Your task to perform on an android device: turn notification dots off Image 0: 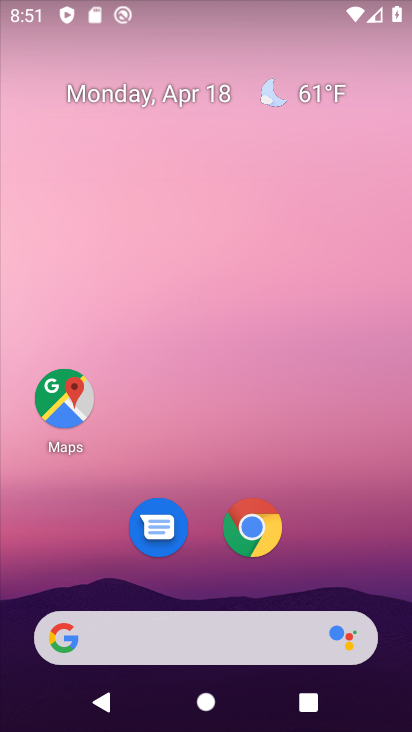
Step 0: drag from (271, 10) to (305, 622)
Your task to perform on an android device: turn notification dots off Image 1: 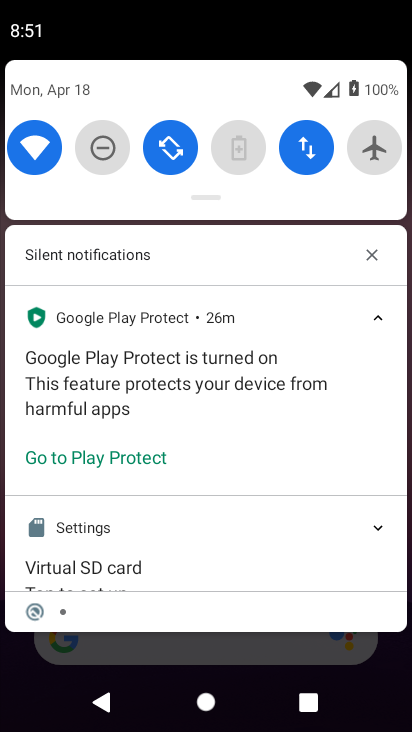
Step 1: drag from (261, 99) to (272, 723)
Your task to perform on an android device: turn notification dots off Image 2: 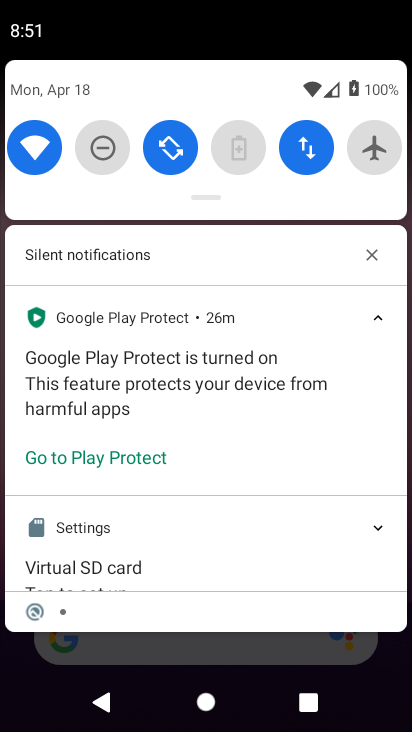
Step 2: drag from (204, 96) to (248, 448)
Your task to perform on an android device: turn notification dots off Image 3: 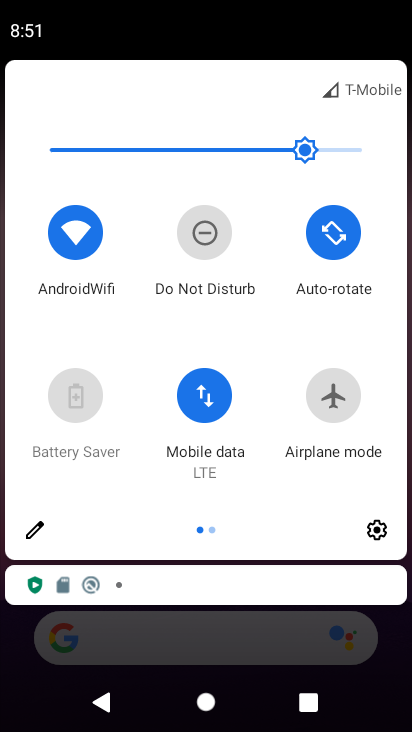
Step 3: click (377, 528)
Your task to perform on an android device: turn notification dots off Image 4: 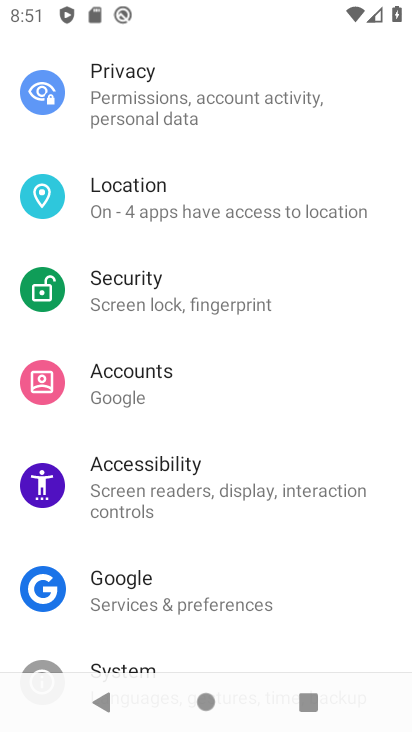
Step 4: click (191, 113)
Your task to perform on an android device: turn notification dots off Image 5: 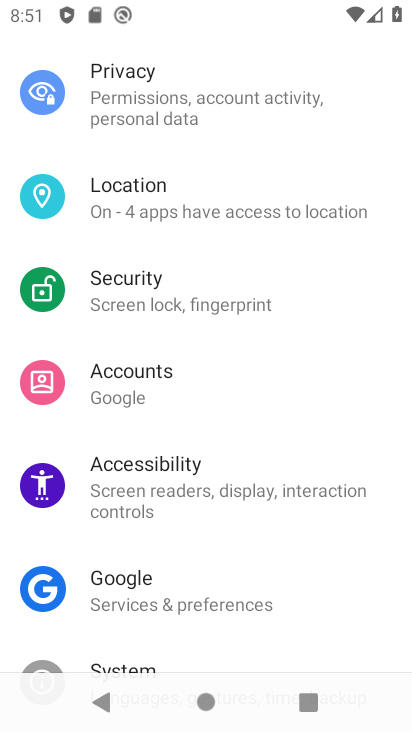
Step 5: drag from (191, 113) to (71, 655)
Your task to perform on an android device: turn notification dots off Image 6: 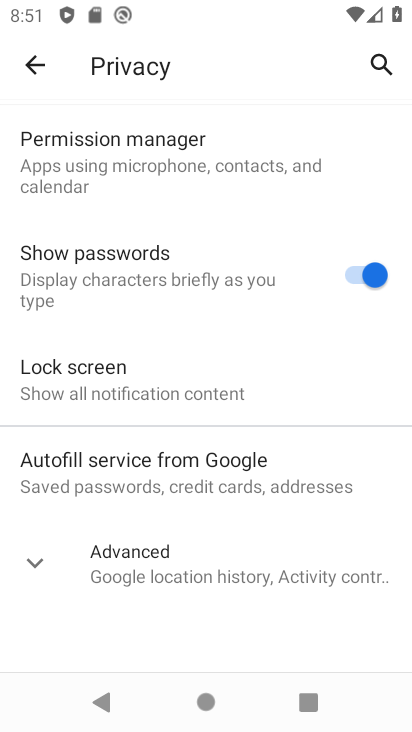
Step 6: click (33, 68)
Your task to perform on an android device: turn notification dots off Image 7: 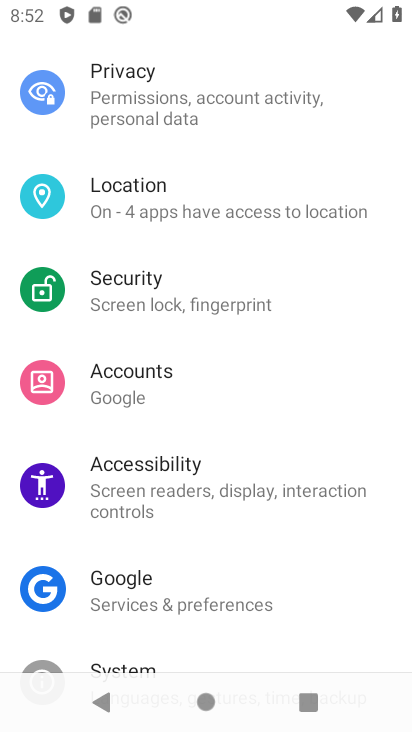
Step 7: drag from (175, 167) to (187, 560)
Your task to perform on an android device: turn notification dots off Image 8: 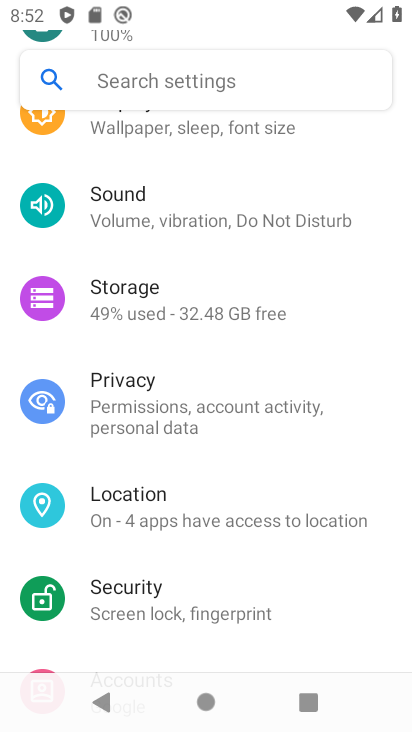
Step 8: drag from (193, 148) to (244, 621)
Your task to perform on an android device: turn notification dots off Image 9: 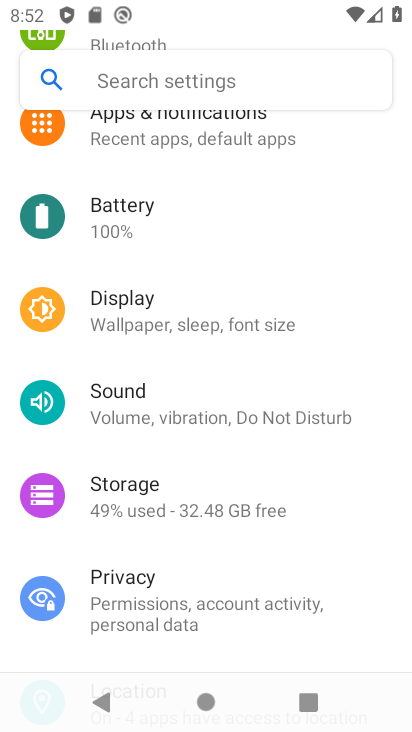
Step 9: click (262, 129)
Your task to perform on an android device: turn notification dots off Image 10: 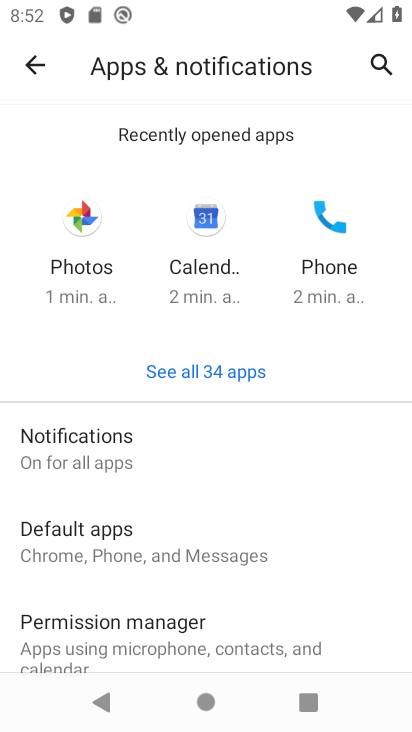
Step 10: click (144, 450)
Your task to perform on an android device: turn notification dots off Image 11: 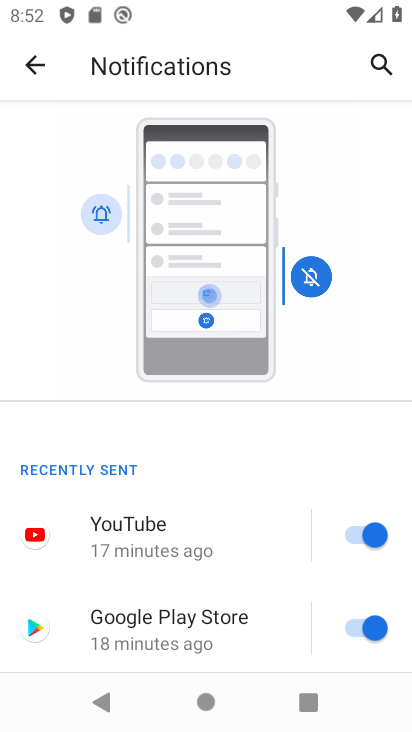
Step 11: drag from (104, 649) to (217, 166)
Your task to perform on an android device: turn notification dots off Image 12: 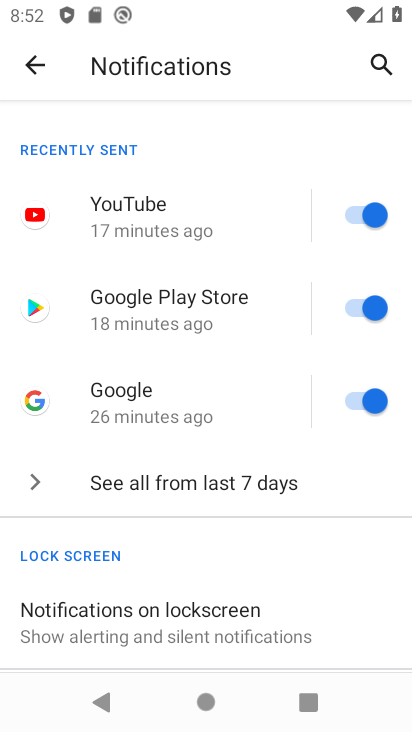
Step 12: drag from (108, 568) to (196, 94)
Your task to perform on an android device: turn notification dots off Image 13: 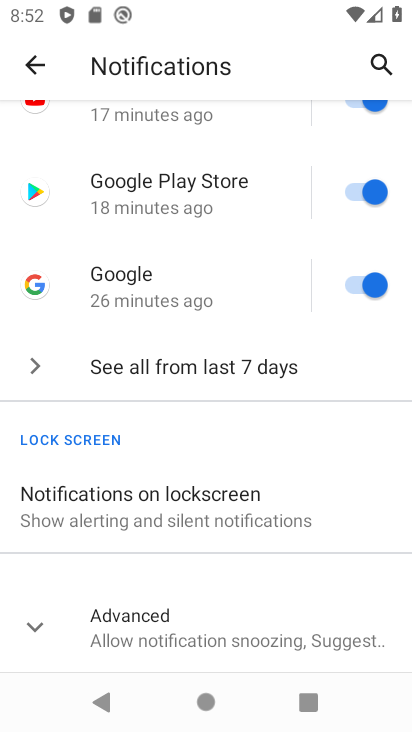
Step 13: click (157, 515)
Your task to perform on an android device: turn notification dots off Image 14: 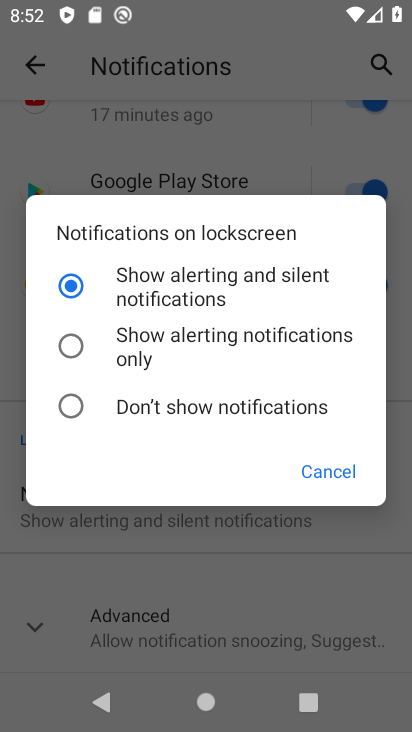
Step 14: click (323, 477)
Your task to perform on an android device: turn notification dots off Image 15: 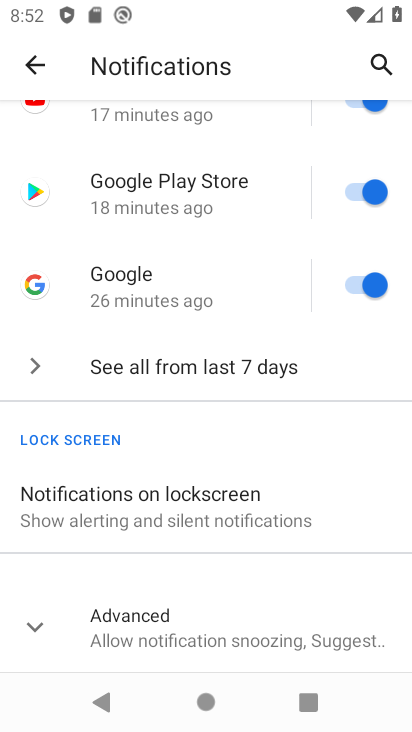
Step 15: click (323, 477)
Your task to perform on an android device: turn notification dots off Image 16: 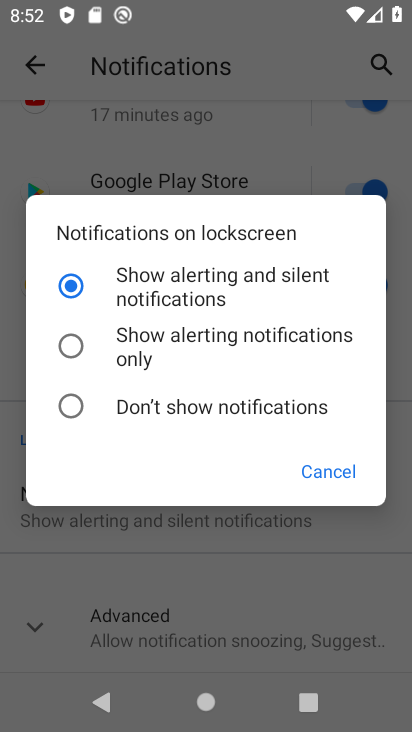
Step 16: click (335, 466)
Your task to perform on an android device: turn notification dots off Image 17: 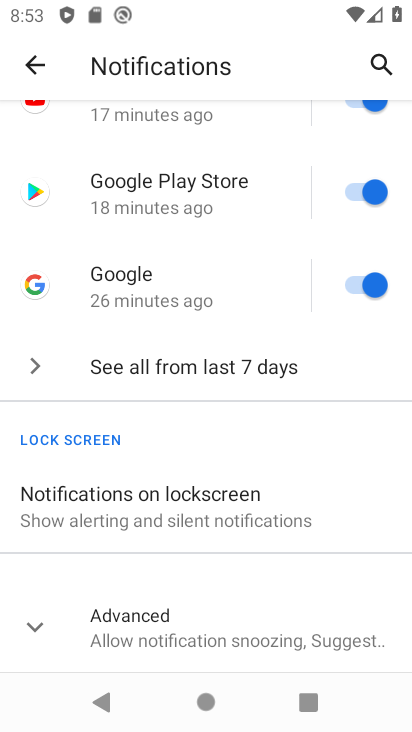
Step 17: click (127, 619)
Your task to perform on an android device: turn notification dots off Image 18: 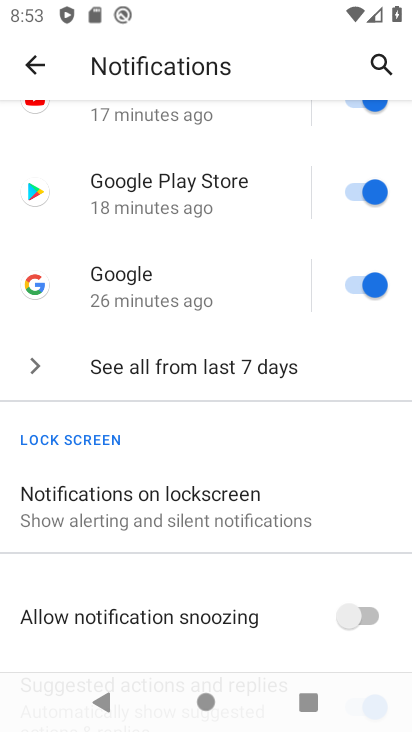
Step 18: drag from (155, 559) to (201, 45)
Your task to perform on an android device: turn notification dots off Image 19: 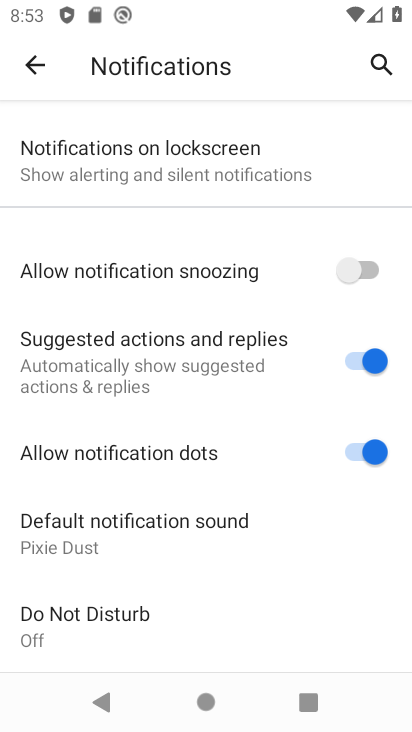
Step 19: click (355, 450)
Your task to perform on an android device: turn notification dots off Image 20: 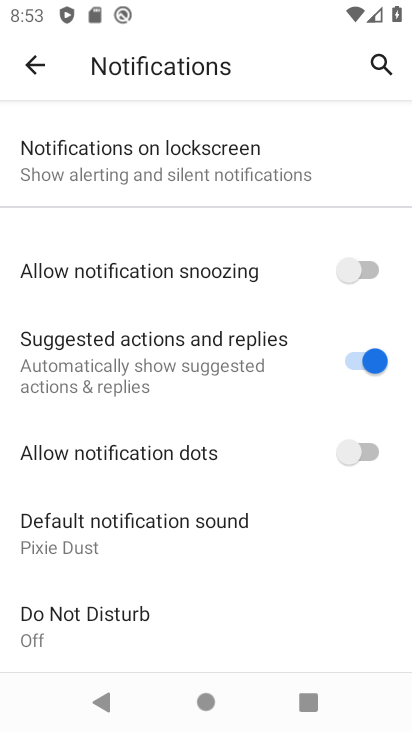
Step 20: task complete